Your task to perform on an android device: Go to network settings Image 0: 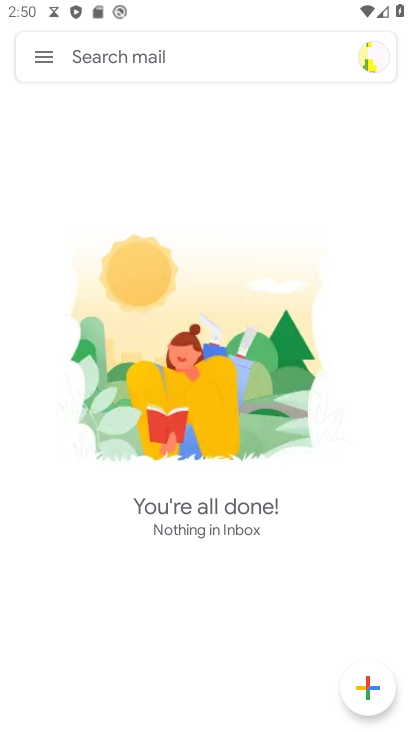
Step 0: click (31, 59)
Your task to perform on an android device: Go to network settings Image 1: 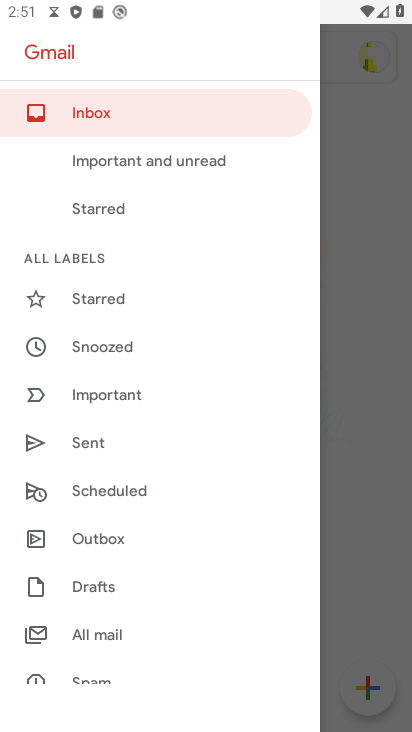
Step 1: press home button
Your task to perform on an android device: Go to network settings Image 2: 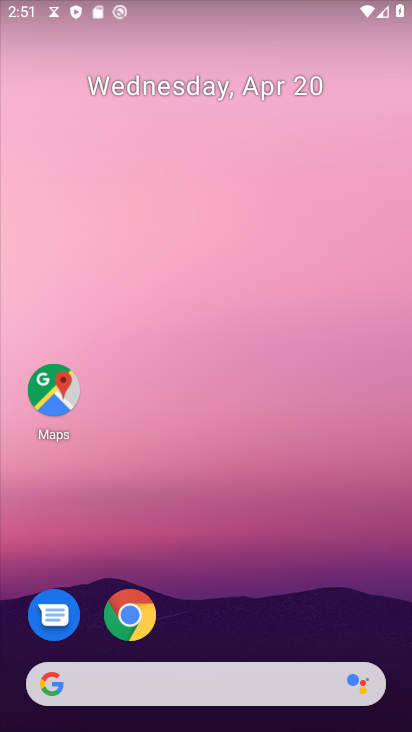
Step 2: drag from (177, 643) to (216, 157)
Your task to perform on an android device: Go to network settings Image 3: 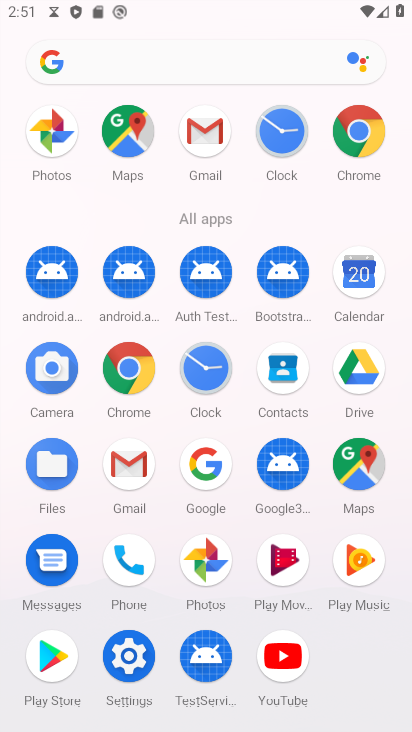
Step 3: click (125, 649)
Your task to perform on an android device: Go to network settings Image 4: 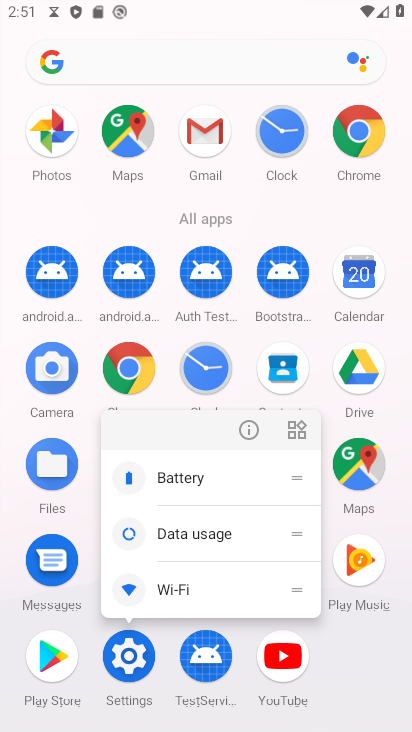
Step 4: click (249, 435)
Your task to perform on an android device: Go to network settings Image 5: 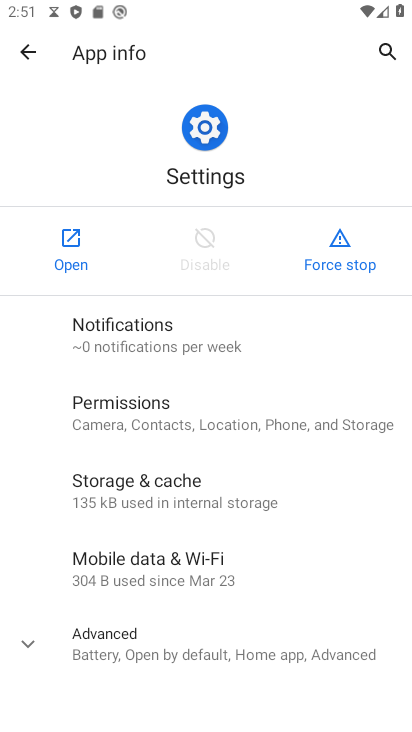
Step 5: click (78, 248)
Your task to perform on an android device: Go to network settings Image 6: 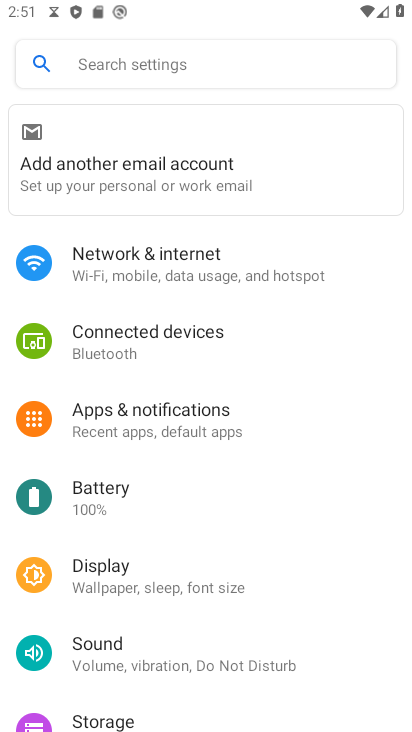
Step 6: click (189, 268)
Your task to perform on an android device: Go to network settings Image 7: 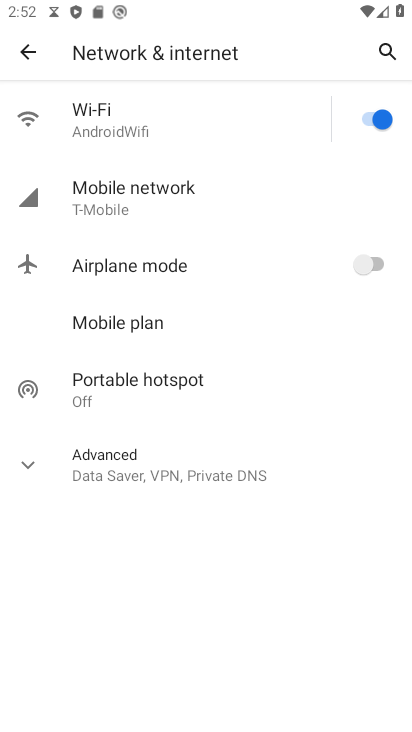
Step 7: click (159, 192)
Your task to perform on an android device: Go to network settings Image 8: 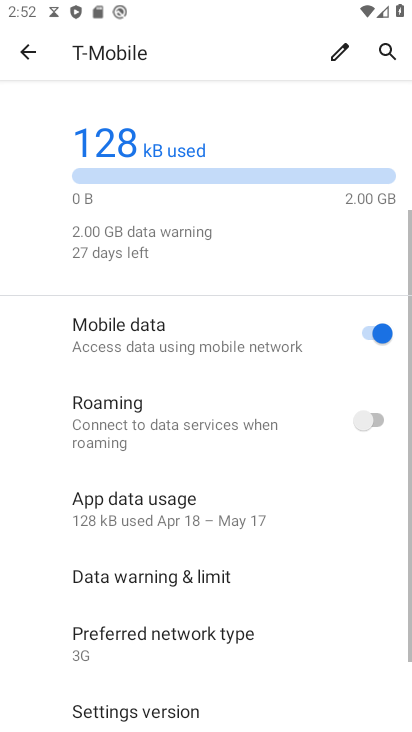
Step 8: task complete